Your task to perform on an android device: Open the gallery Image 0: 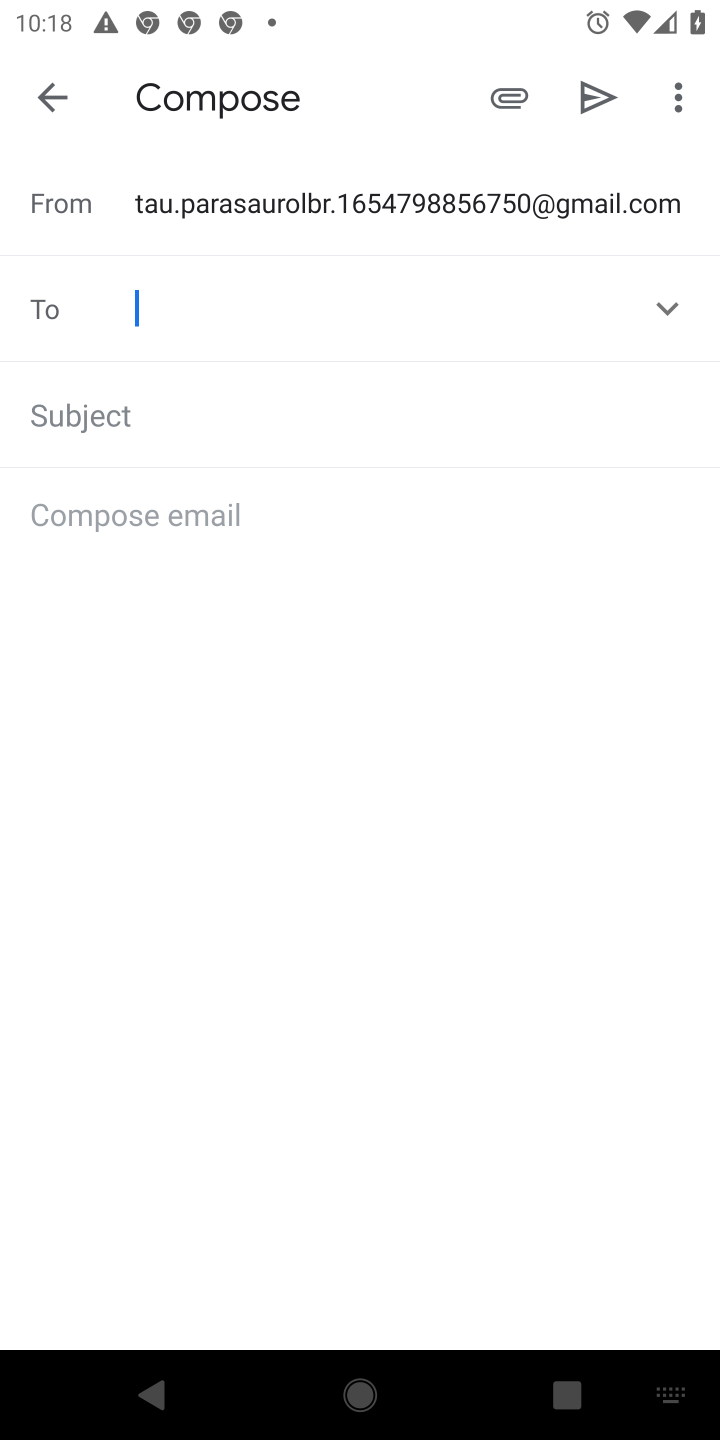
Step 0: press home button
Your task to perform on an android device: Open the gallery Image 1: 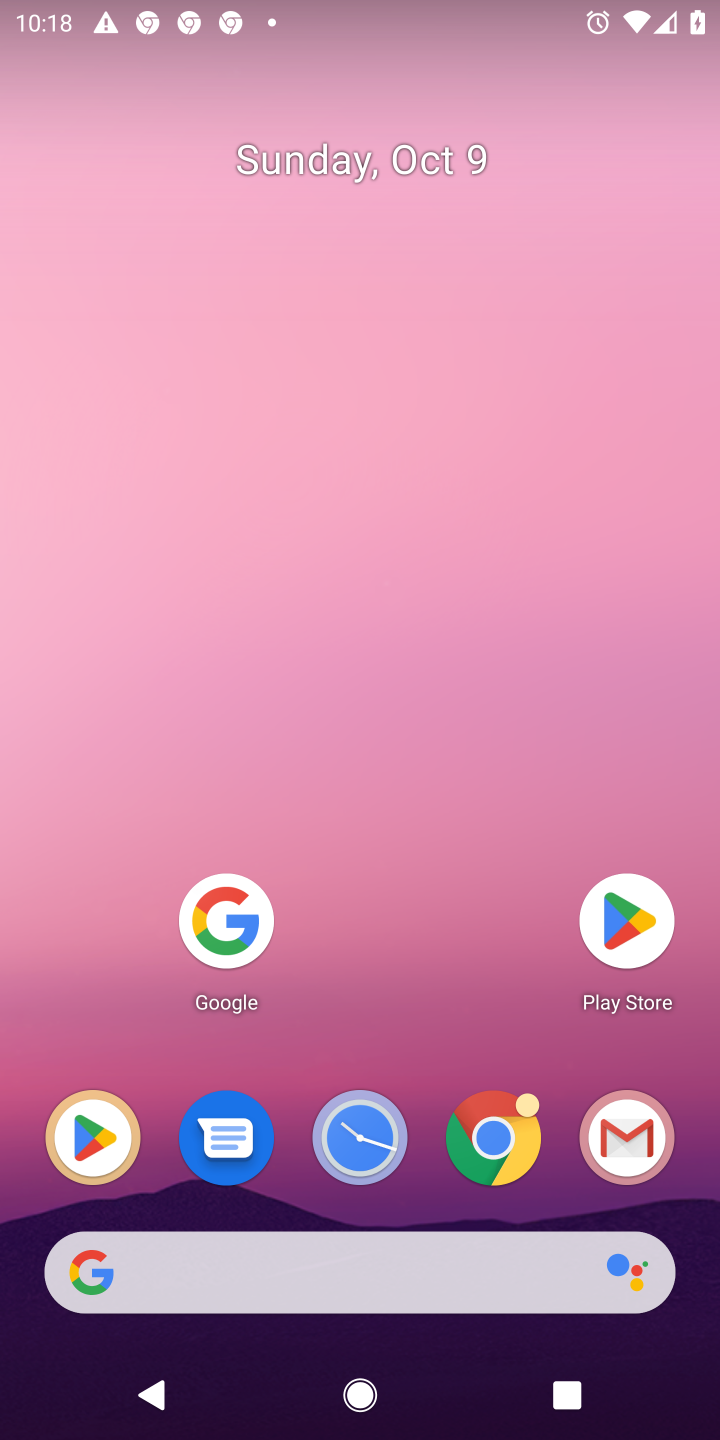
Step 1: drag from (328, 1229) to (442, 303)
Your task to perform on an android device: Open the gallery Image 2: 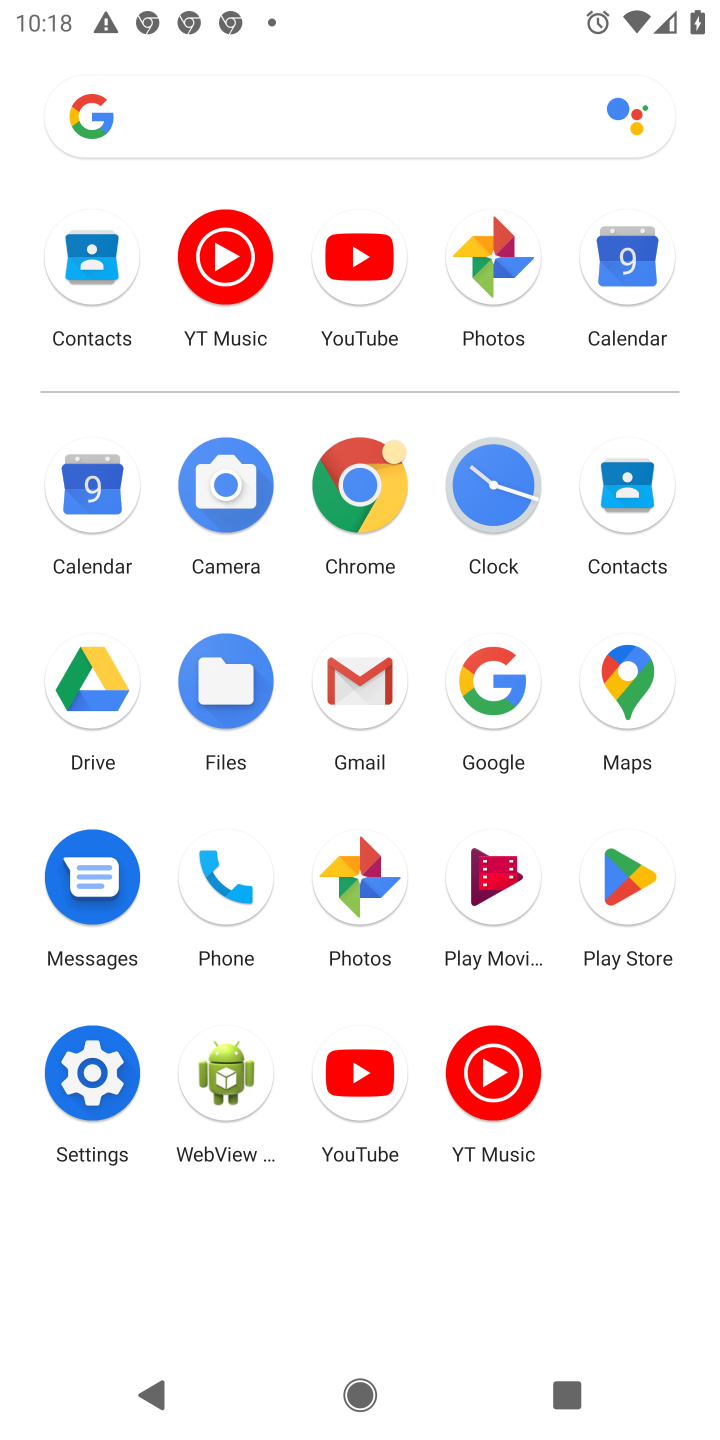
Step 2: click (331, 859)
Your task to perform on an android device: Open the gallery Image 3: 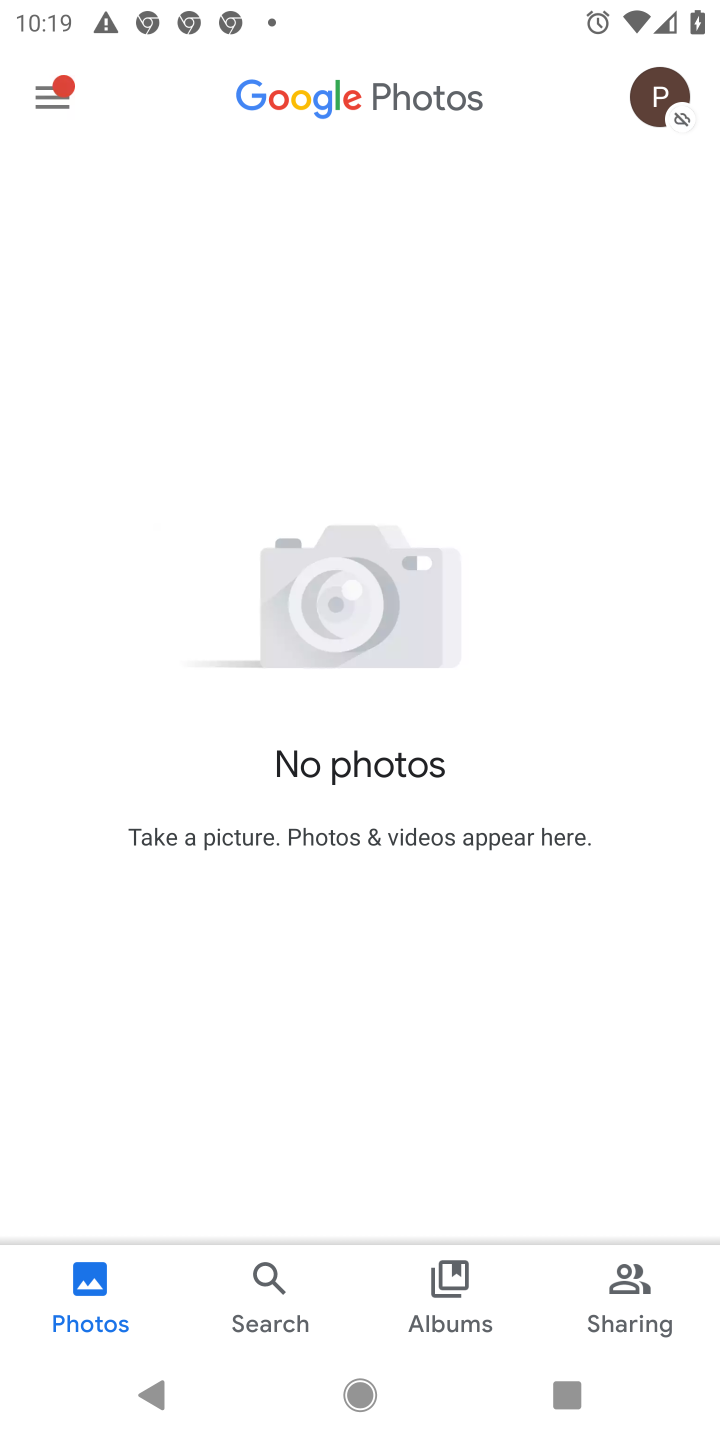
Step 3: task complete